Your task to perform on an android device: empty trash in the gmail app Image 0: 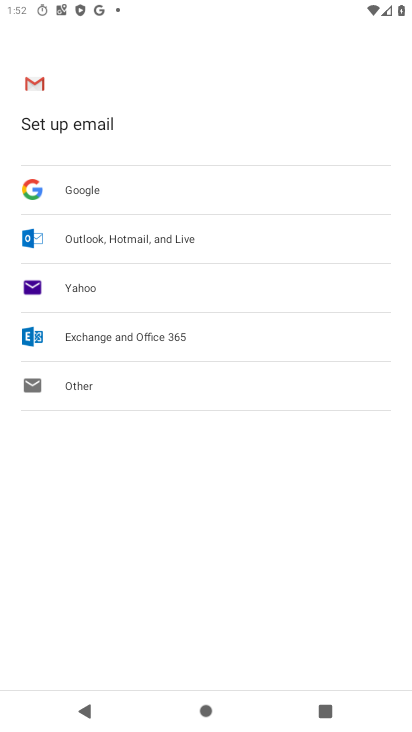
Step 0: press home button
Your task to perform on an android device: empty trash in the gmail app Image 1: 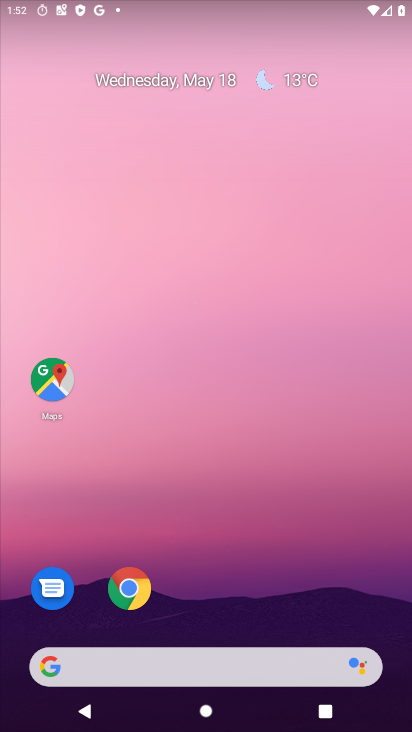
Step 1: drag from (179, 651) to (250, 0)
Your task to perform on an android device: empty trash in the gmail app Image 2: 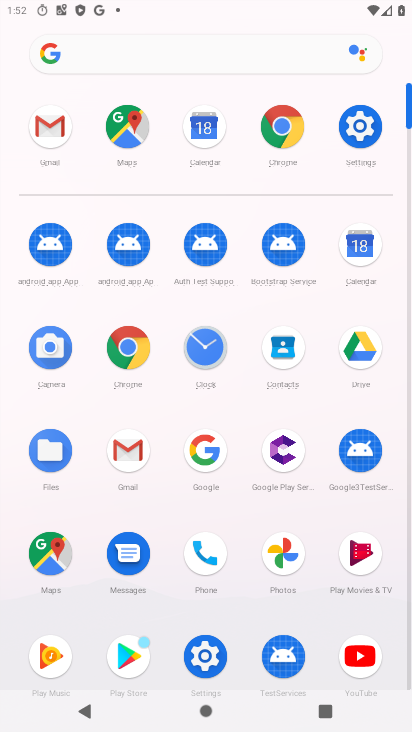
Step 2: click (126, 454)
Your task to perform on an android device: empty trash in the gmail app Image 3: 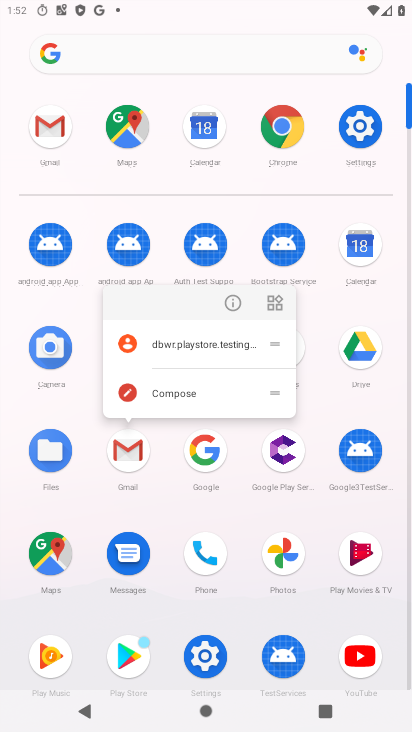
Step 3: click (177, 347)
Your task to perform on an android device: empty trash in the gmail app Image 4: 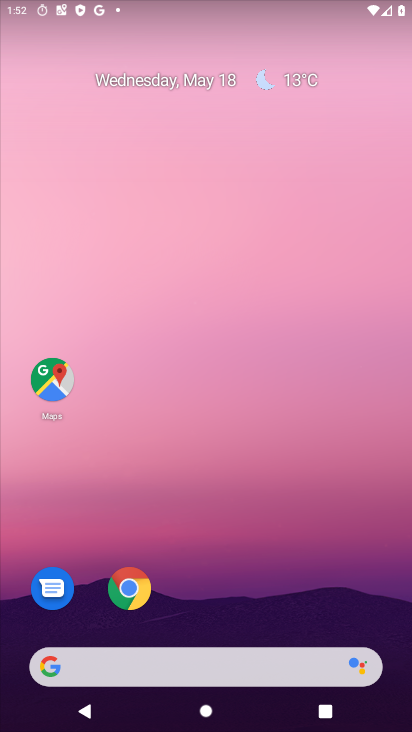
Step 4: drag from (189, 601) to (235, 131)
Your task to perform on an android device: empty trash in the gmail app Image 5: 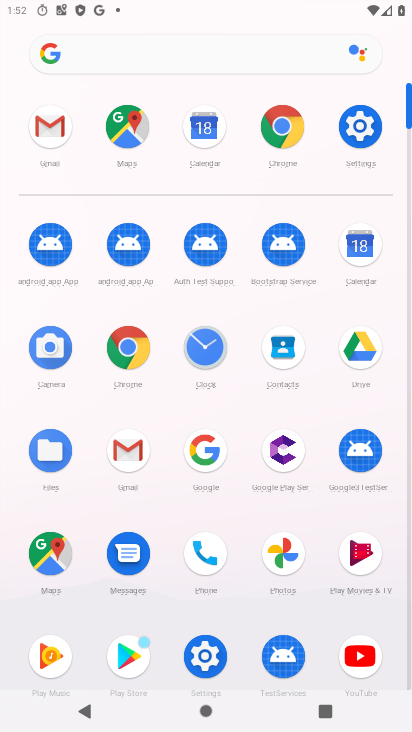
Step 5: click (129, 445)
Your task to perform on an android device: empty trash in the gmail app Image 6: 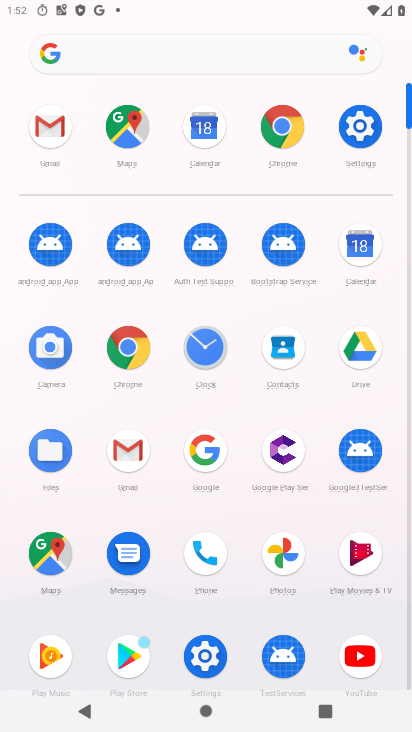
Step 6: click (129, 445)
Your task to perform on an android device: empty trash in the gmail app Image 7: 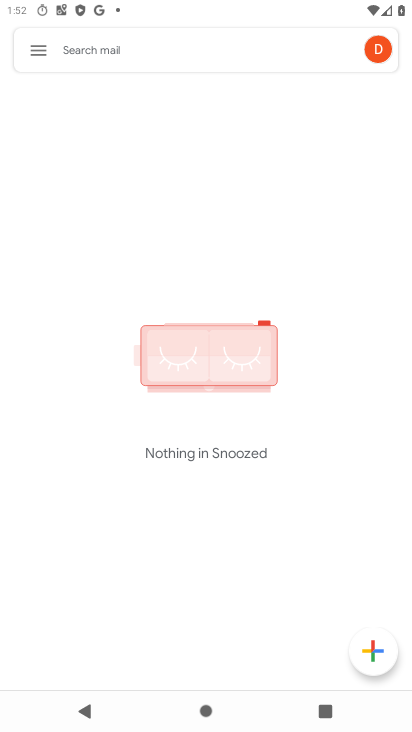
Step 7: click (47, 47)
Your task to perform on an android device: empty trash in the gmail app Image 8: 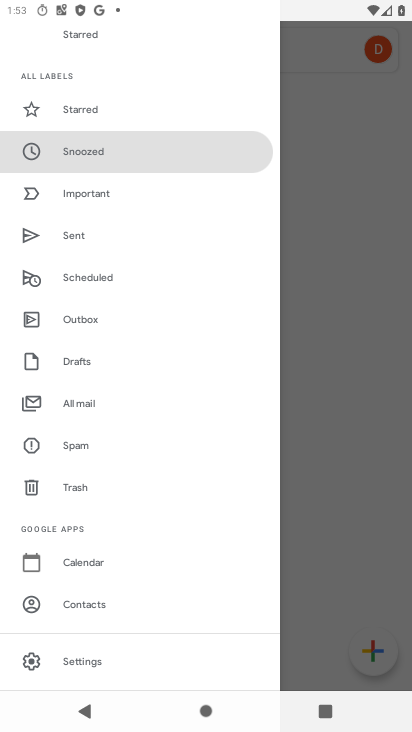
Step 8: drag from (163, 579) to (283, 79)
Your task to perform on an android device: empty trash in the gmail app Image 9: 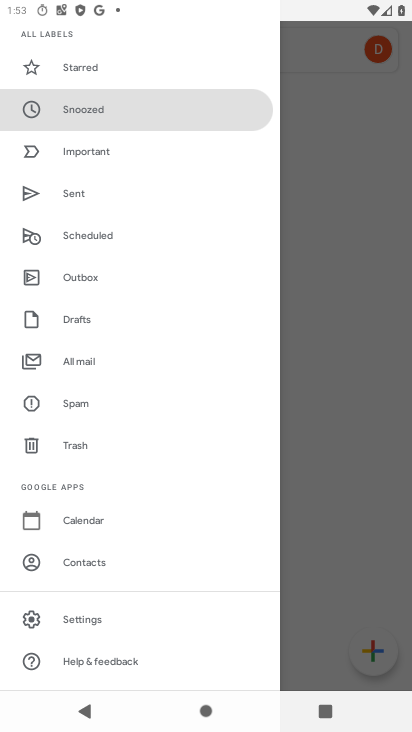
Step 9: click (77, 443)
Your task to perform on an android device: empty trash in the gmail app Image 10: 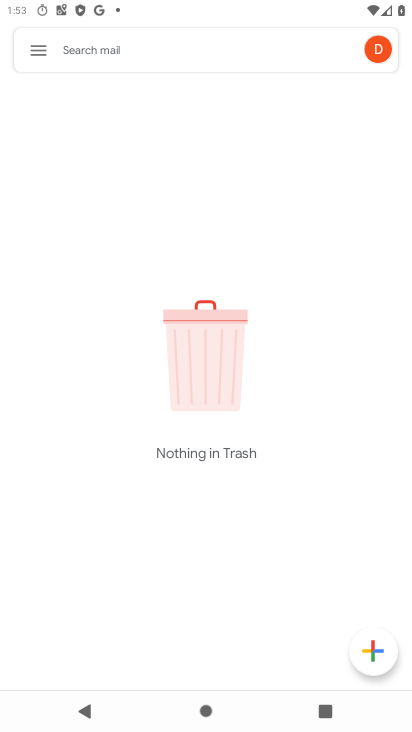
Step 10: task complete